Your task to perform on an android device: Open display settings Image 0: 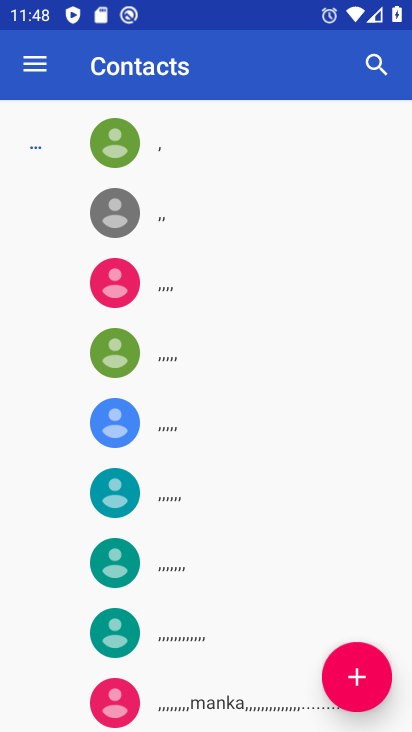
Step 0: press home button
Your task to perform on an android device: Open display settings Image 1: 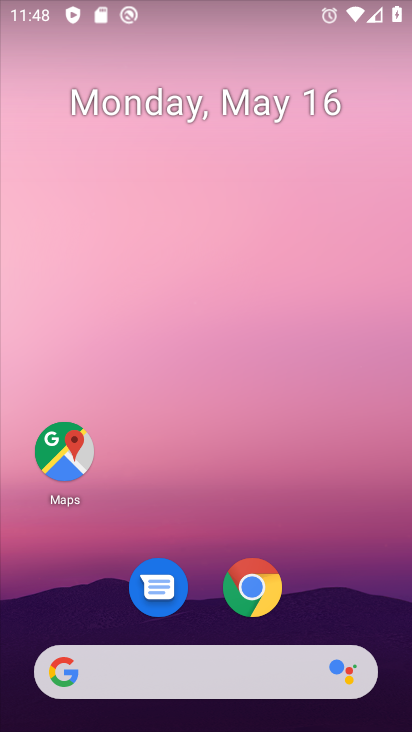
Step 1: drag from (356, 608) to (311, 243)
Your task to perform on an android device: Open display settings Image 2: 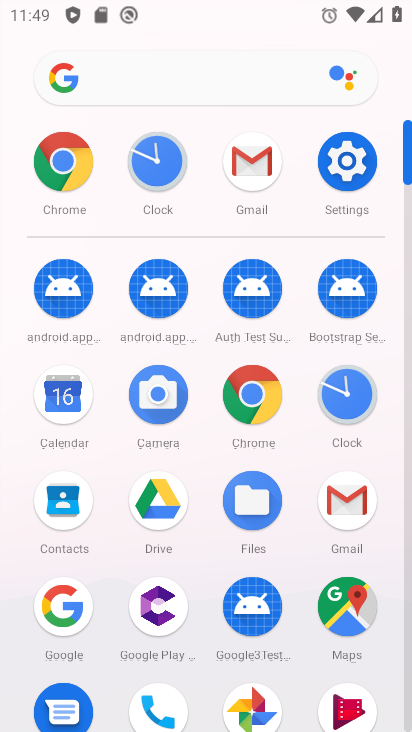
Step 2: click (360, 157)
Your task to perform on an android device: Open display settings Image 3: 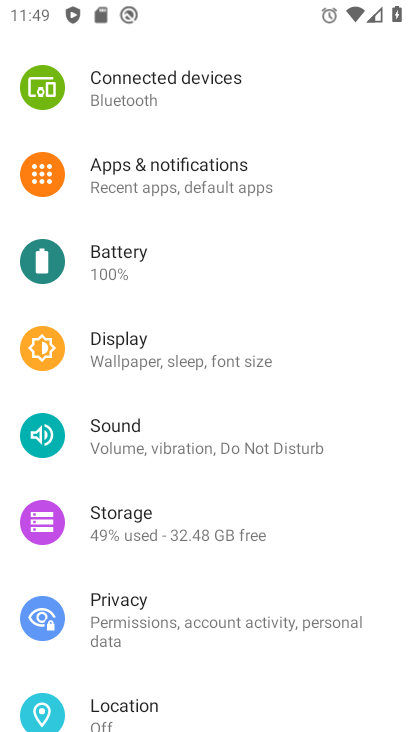
Step 3: click (172, 350)
Your task to perform on an android device: Open display settings Image 4: 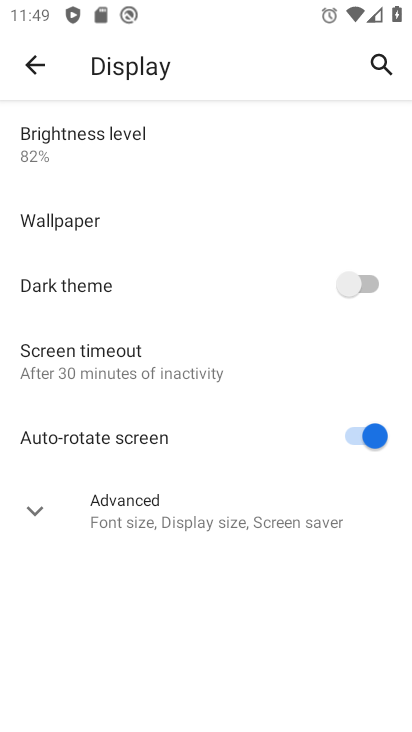
Step 4: task complete